Your task to perform on an android device: turn on notifications settings in the gmail app Image 0: 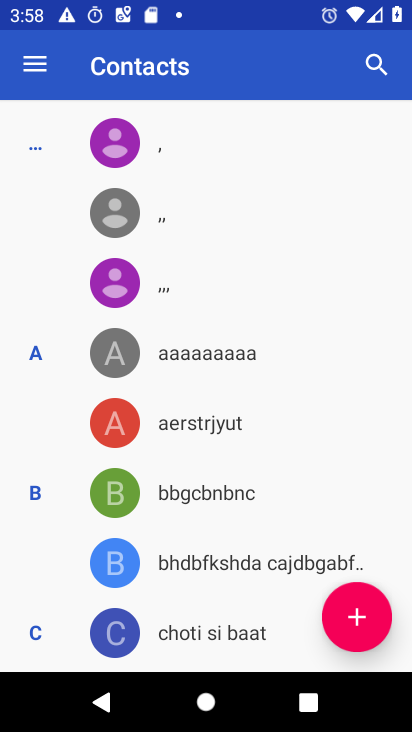
Step 0: press home button
Your task to perform on an android device: turn on notifications settings in the gmail app Image 1: 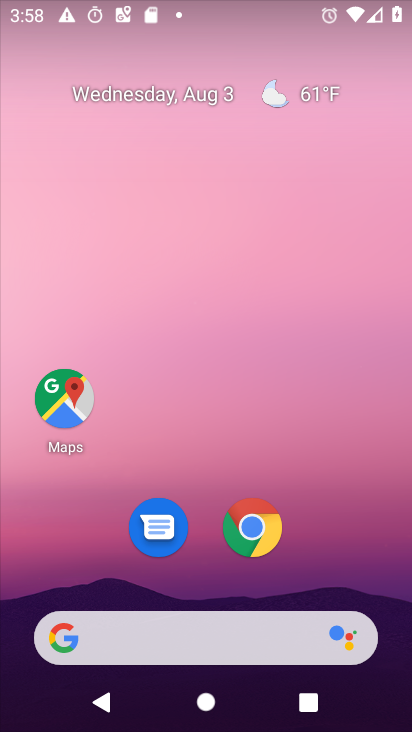
Step 1: drag from (320, 490) to (303, 115)
Your task to perform on an android device: turn on notifications settings in the gmail app Image 2: 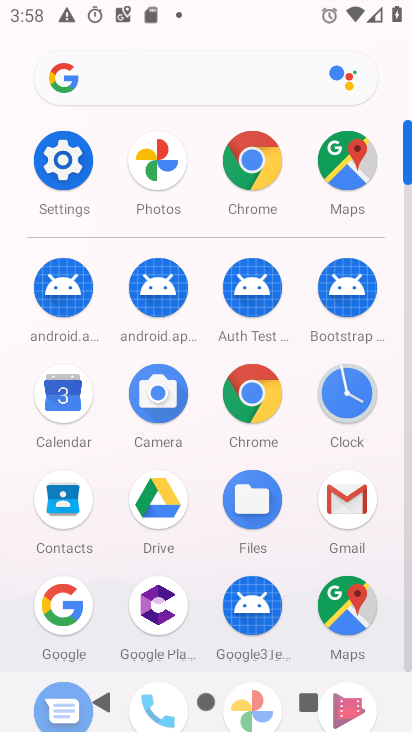
Step 2: click (356, 507)
Your task to perform on an android device: turn on notifications settings in the gmail app Image 3: 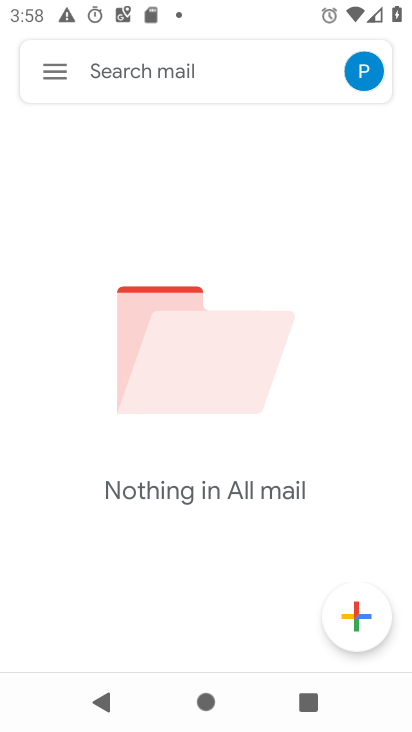
Step 3: click (57, 60)
Your task to perform on an android device: turn on notifications settings in the gmail app Image 4: 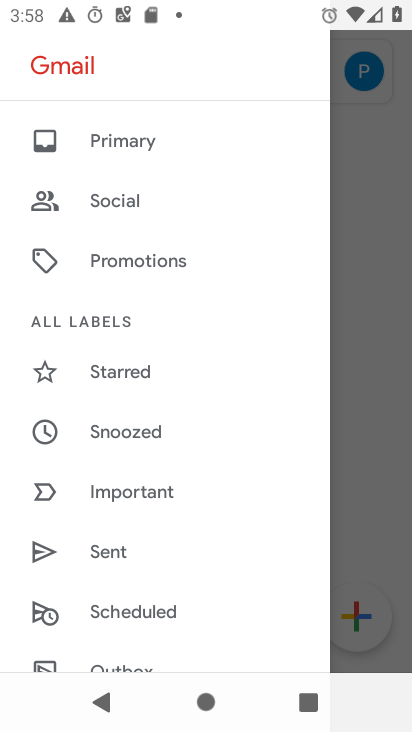
Step 4: drag from (168, 599) to (235, 242)
Your task to perform on an android device: turn on notifications settings in the gmail app Image 5: 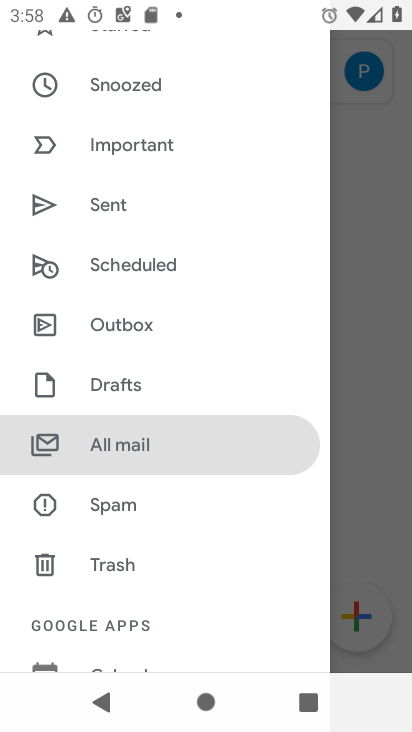
Step 5: drag from (202, 610) to (255, 225)
Your task to perform on an android device: turn on notifications settings in the gmail app Image 6: 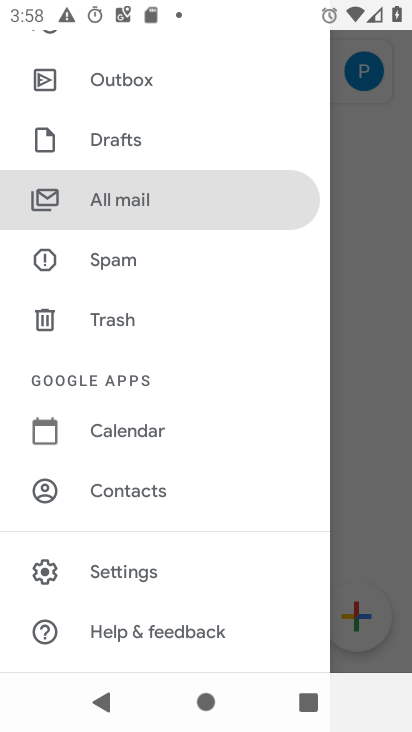
Step 6: click (123, 575)
Your task to perform on an android device: turn on notifications settings in the gmail app Image 7: 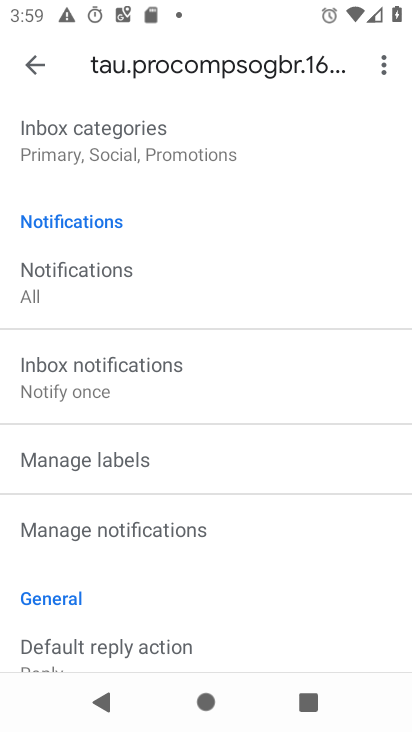
Step 7: click (181, 535)
Your task to perform on an android device: turn on notifications settings in the gmail app Image 8: 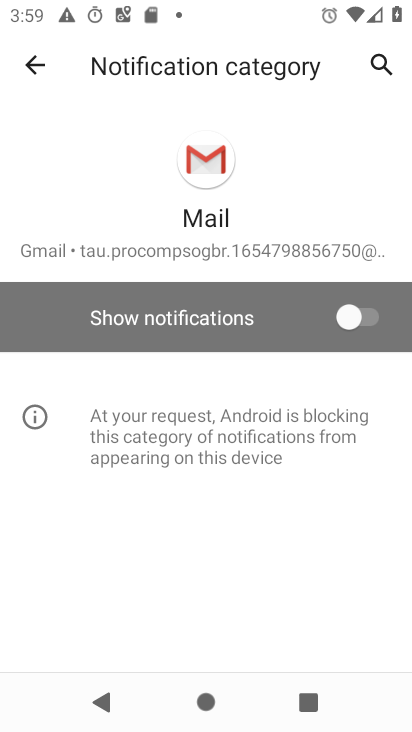
Step 8: click (366, 300)
Your task to perform on an android device: turn on notifications settings in the gmail app Image 9: 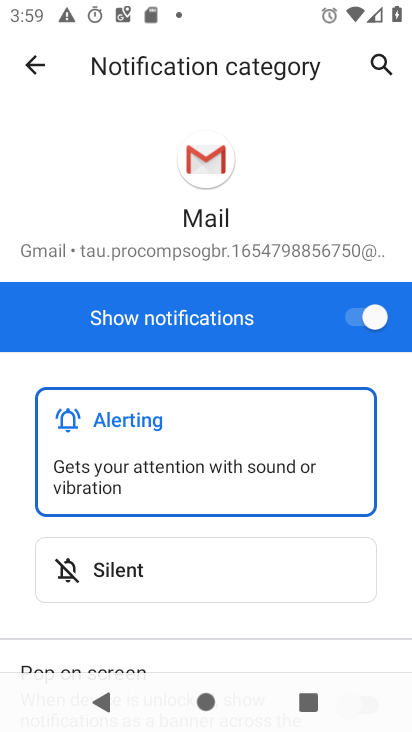
Step 9: task complete